Your task to perform on an android device: Go to Wikipedia Image 0: 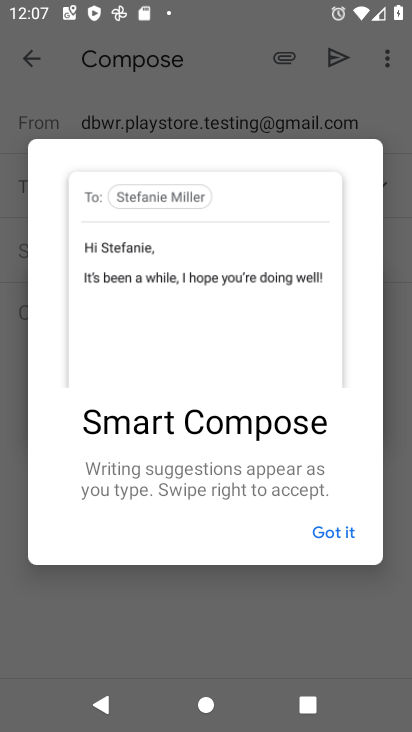
Step 0: press home button
Your task to perform on an android device: Go to Wikipedia Image 1: 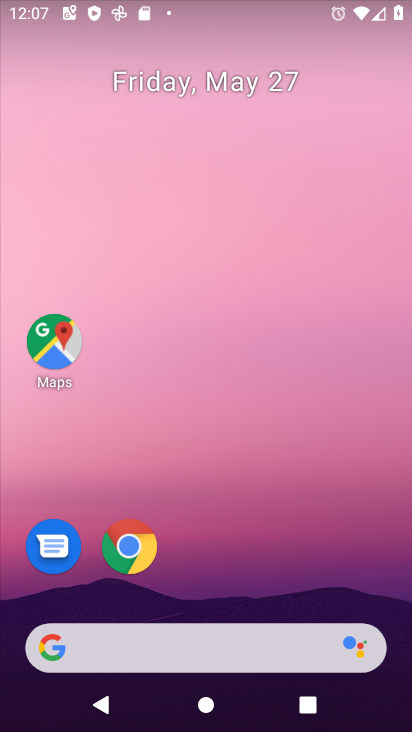
Step 1: click (117, 550)
Your task to perform on an android device: Go to Wikipedia Image 2: 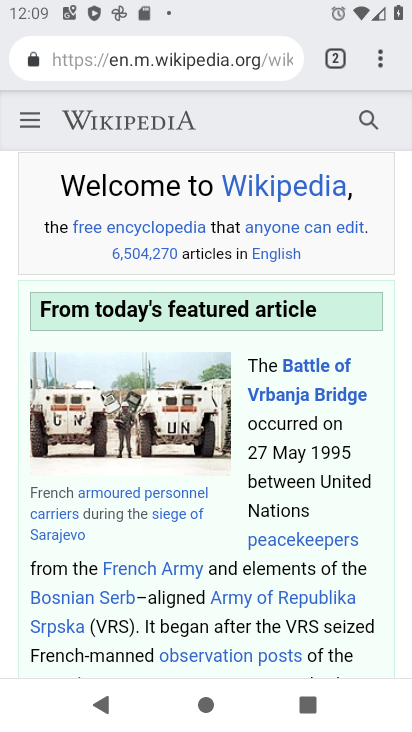
Step 2: task complete